Your task to perform on an android device: toggle notification dots Image 0: 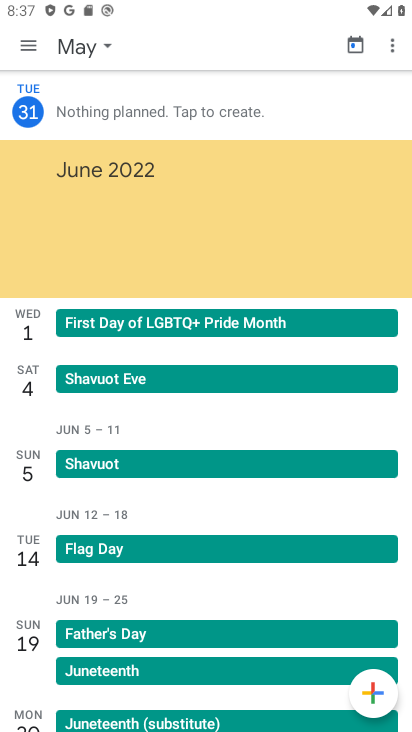
Step 0: press home button
Your task to perform on an android device: toggle notification dots Image 1: 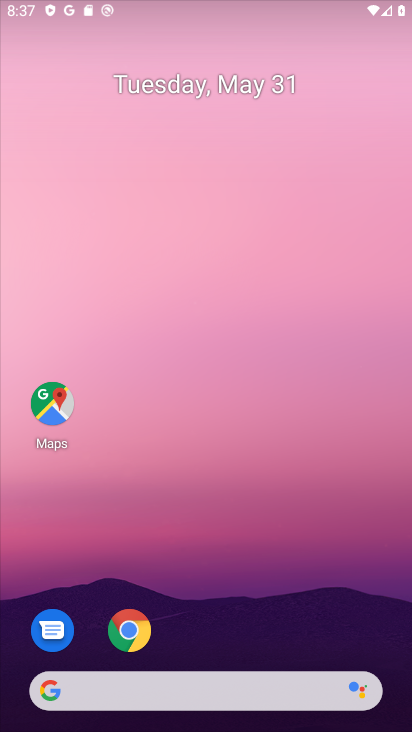
Step 1: drag from (178, 730) to (241, 183)
Your task to perform on an android device: toggle notification dots Image 2: 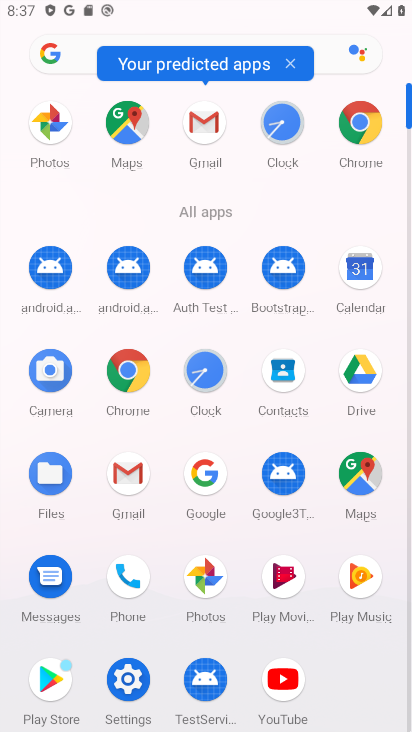
Step 2: click (125, 678)
Your task to perform on an android device: toggle notification dots Image 3: 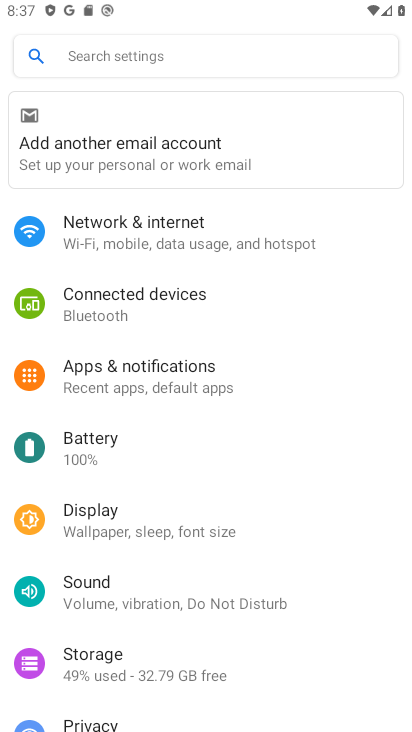
Step 3: click (139, 366)
Your task to perform on an android device: toggle notification dots Image 4: 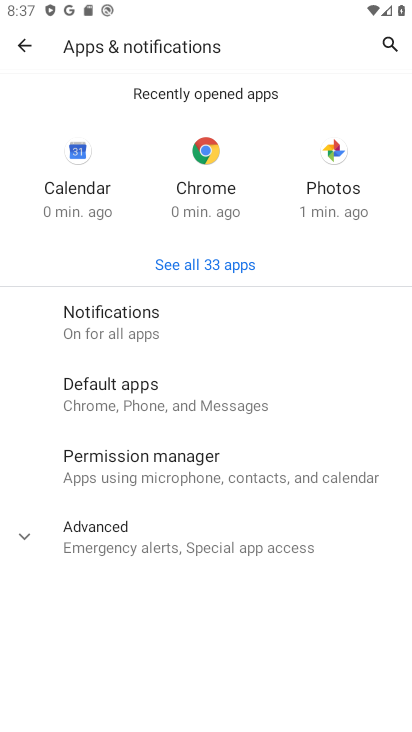
Step 4: click (143, 331)
Your task to perform on an android device: toggle notification dots Image 5: 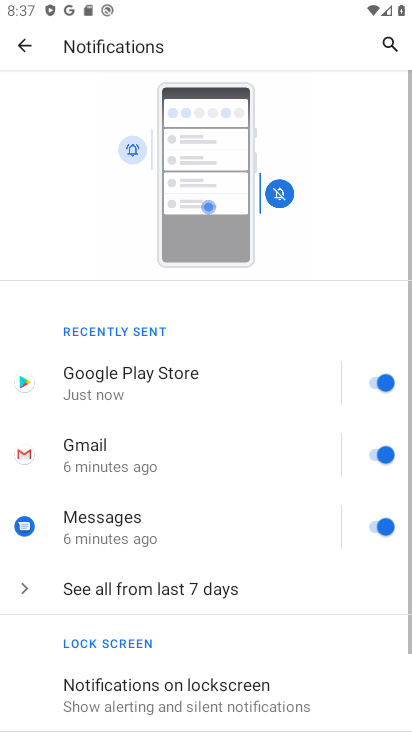
Step 5: drag from (144, 666) to (262, 251)
Your task to perform on an android device: toggle notification dots Image 6: 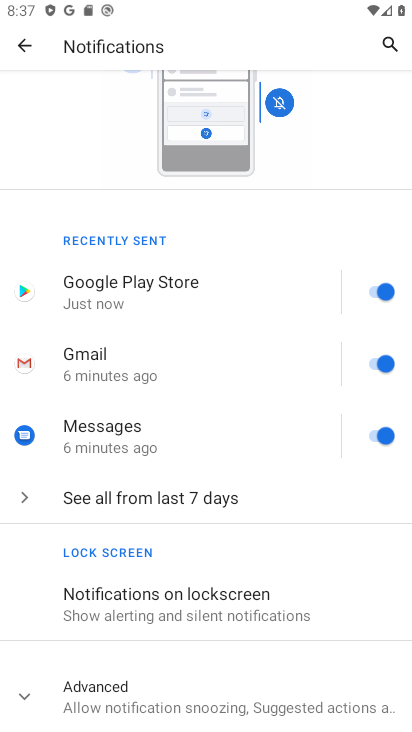
Step 6: click (168, 675)
Your task to perform on an android device: toggle notification dots Image 7: 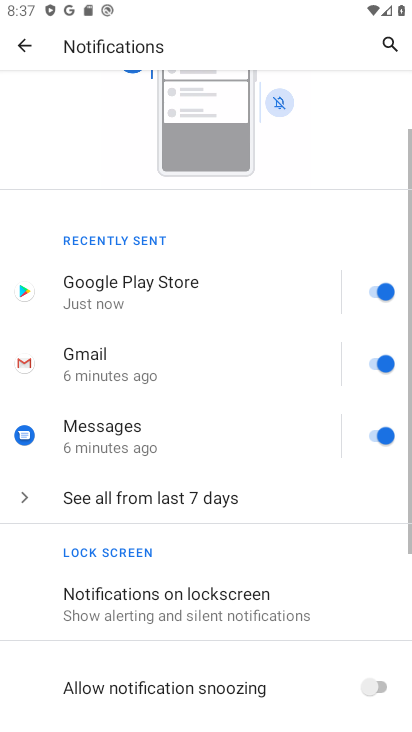
Step 7: drag from (193, 648) to (236, 357)
Your task to perform on an android device: toggle notification dots Image 8: 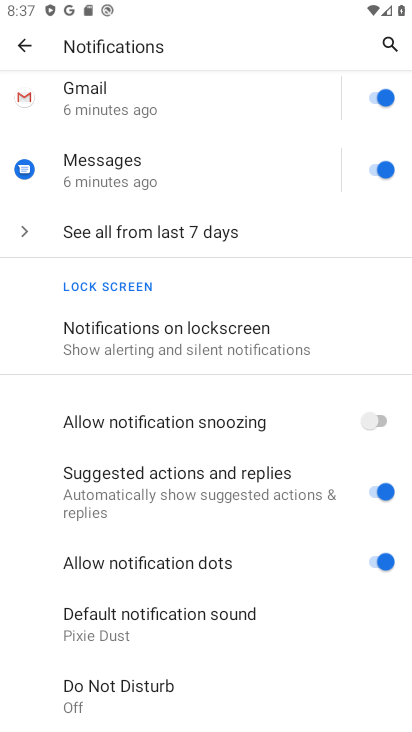
Step 8: click (377, 560)
Your task to perform on an android device: toggle notification dots Image 9: 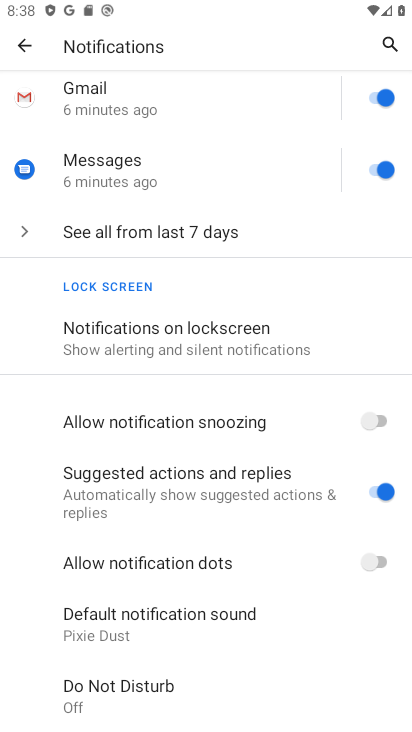
Step 9: task complete